Your task to perform on an android device: remove spam from my inbox in the gmail app Image 0: 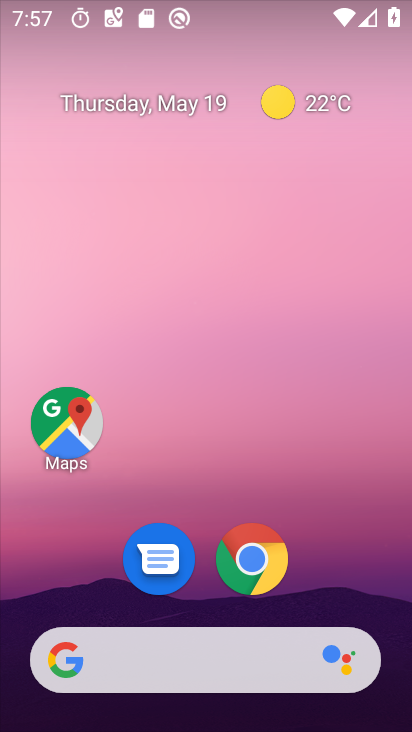
Step 0: drag from (329, 601) to (338, 1)
Your task to perform on an android device: remove spam from my inbox in the gmail app Image 1: 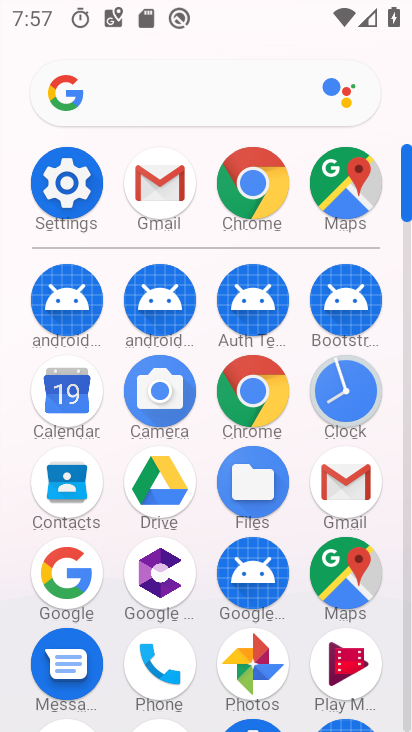
Step 1: click (347, 501)
Your task to perform on an android device: remove spam from my inbox in the gmail app Image 2: 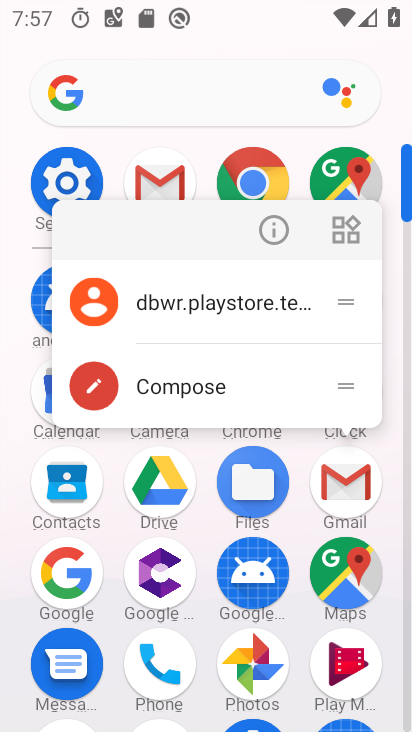
Step 2: click (349, 495)
Your task to perform on an android device: remove spam from my inbox in the gmail app Image 3: 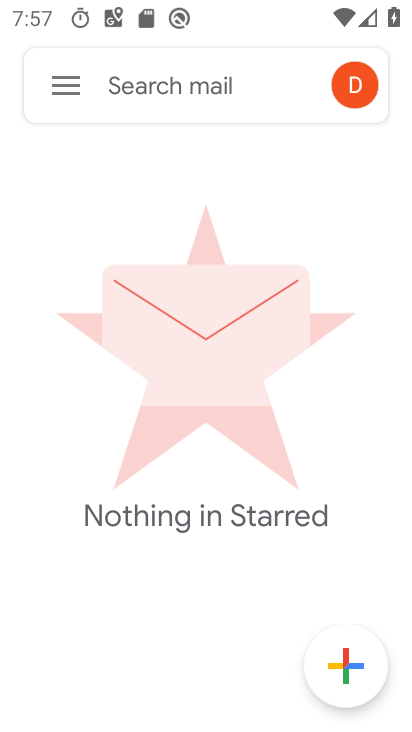
Step 3: click (66, 85)
Your task to perform on an android device: remove spam from my inbox in the gmail app Image 4: 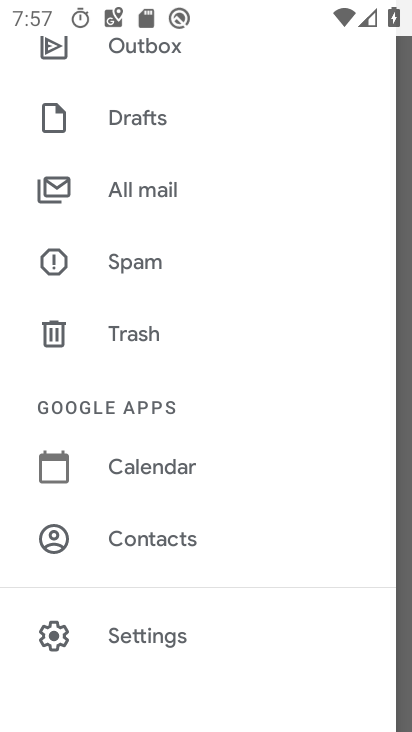
Step 4: click (130, 267)
Your task to perform on an android device: remove spam from my inbox in the gmail app Image 5: 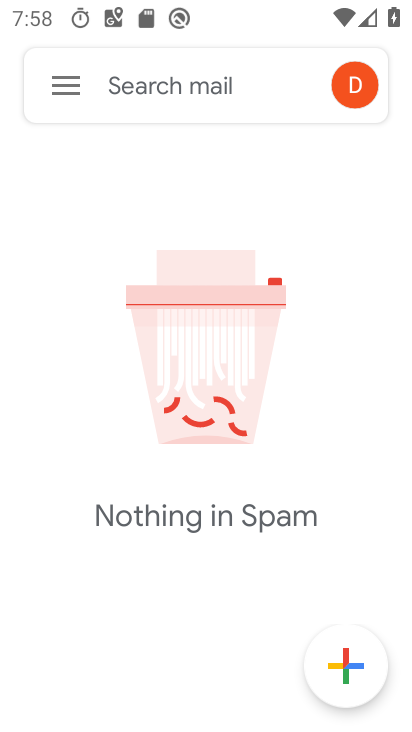
Step 5: task complete